Your task to perform on an android device: turn pop-ups off in chrome Image 0: 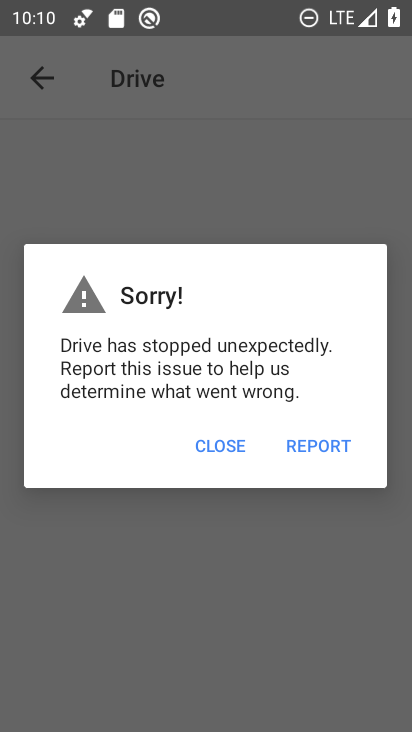
Step 0: press home button
Your task to perform on an android device: turn pop-ups off in chrome Image 1: 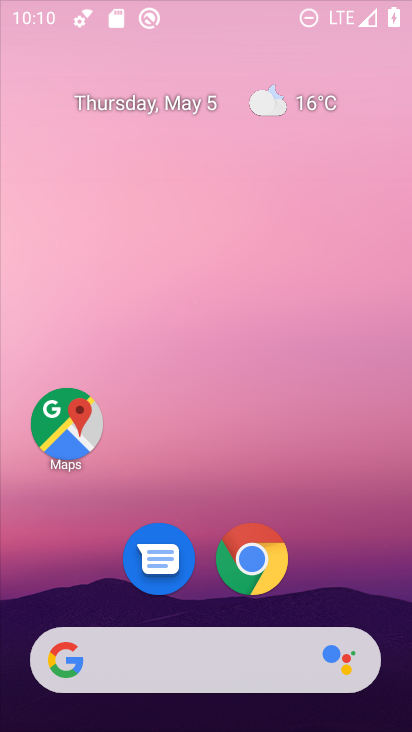
Step 1: drag from (390, 687) to (305, 142)
Your task to perform on an android device: turn pop-ups off in chrome Image 2: 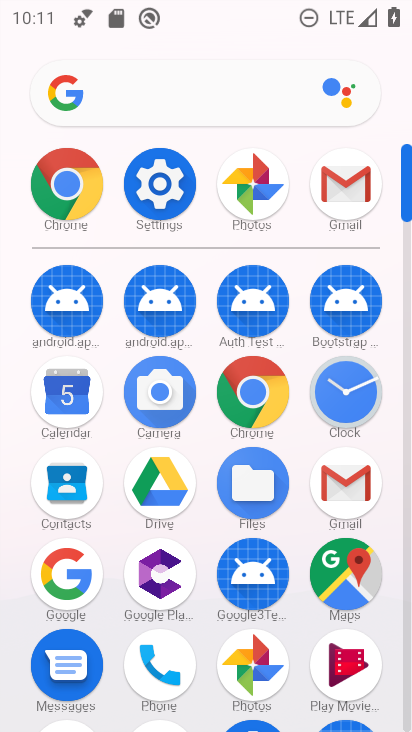
Step 2: click (43, 193)
Your task to perform on an android device: turn pop-ups off in chrome Image 3: 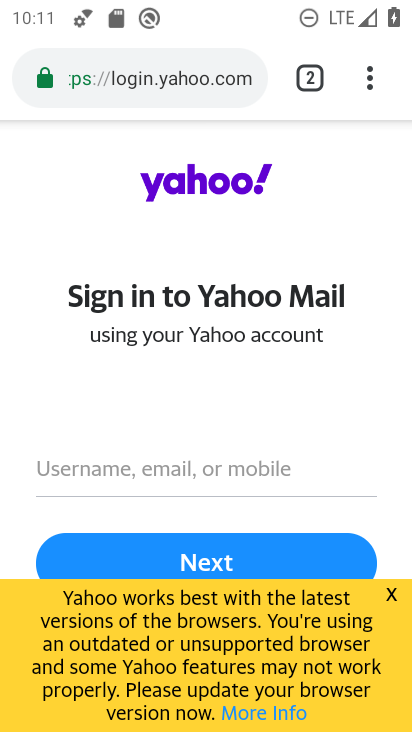
Step 3: press back button
Your task to perform on an android device: turn pop-ups off in chrome Image 4: 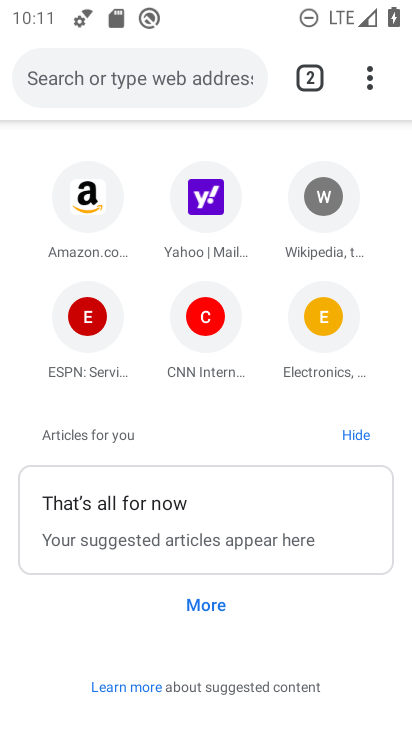
Step 4: click (366, 68)
Your task to perform on an android device: turn pop-ups off in chrome Image 5: 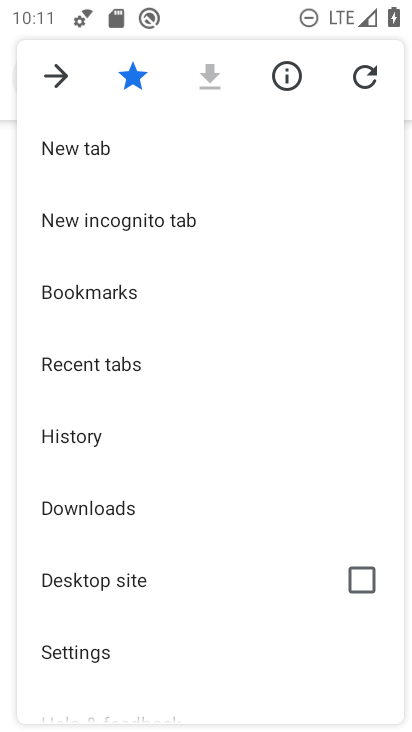
Step 5: drag from (172, 637) to (239, 145)
Your task to perform on an android device: turn pop-ups off in chrome Image 6: 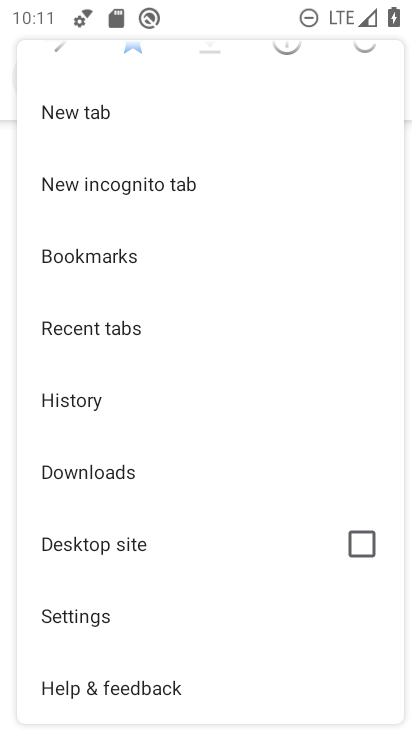
Step 6: click (123, 612)
Your task to perform on an android device: turn pop-ups off in chrome Image 7: 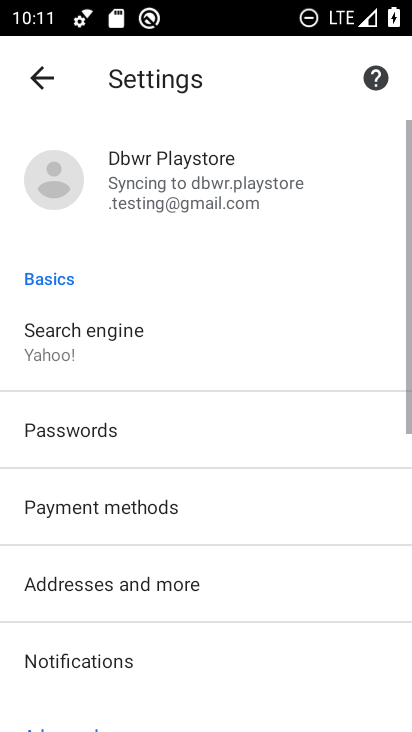
Step 7: drag from (123, 612) to (179, 93)
Your task to perform on an android device: turn pop-ups off in chrome Image 8: 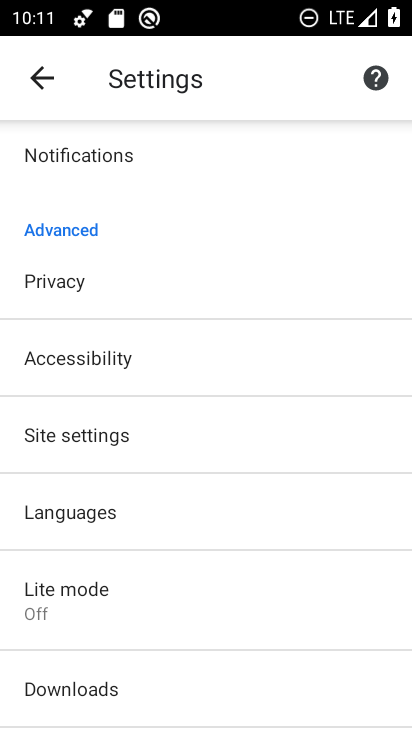
Step 8: click (207, 452)
Your task to perform on an android device: turn pop-ups off in chrome Image 9: 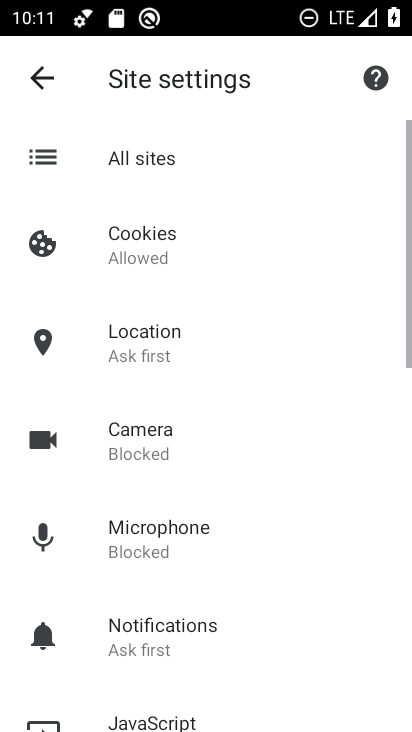
Step 9: drag from (232, 633) to (322, 225)
Your task to perform on an android device: turn pop-ups off in chrome Image 10: 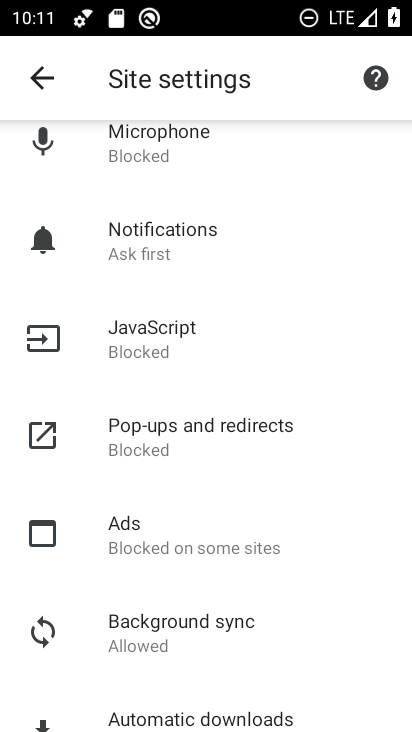
Step 10: click (226, 425)
Your task to perform on an android device: turn pop-ups off in chrome Image 11: 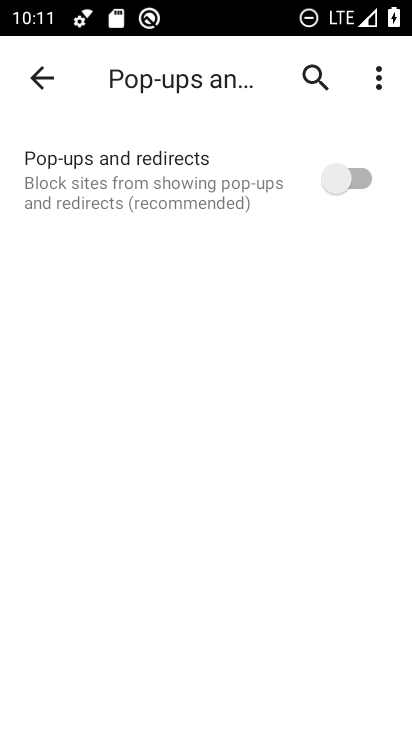
Step 11: task complete